Your task to perform on an android device: turn vacation reply on in the gmail app Image 0: 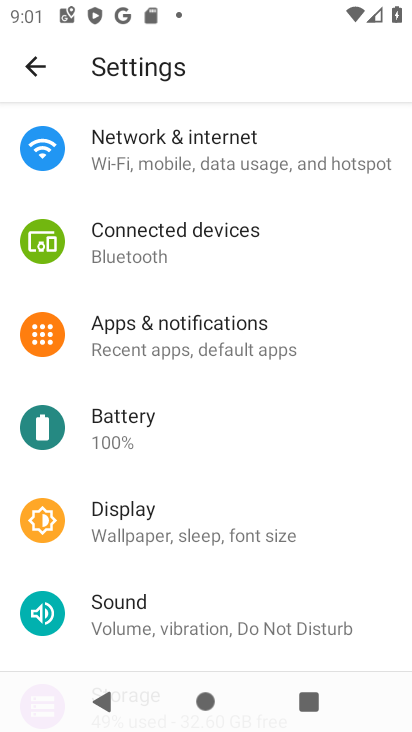
Step 0: press home button
Your task to perform on an android device: turn vacation reply on in the gmail app Image 1: 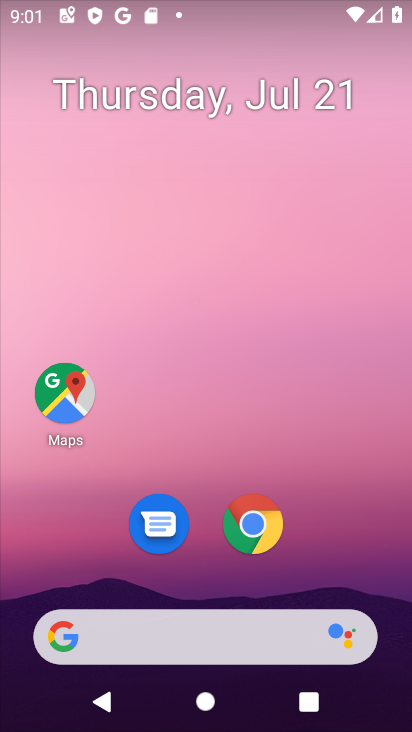
Step 1: drag from (180, 640) to (280, 191)
Your task to perform on an android device: turn vacation reply on in the gmail app Image 2: 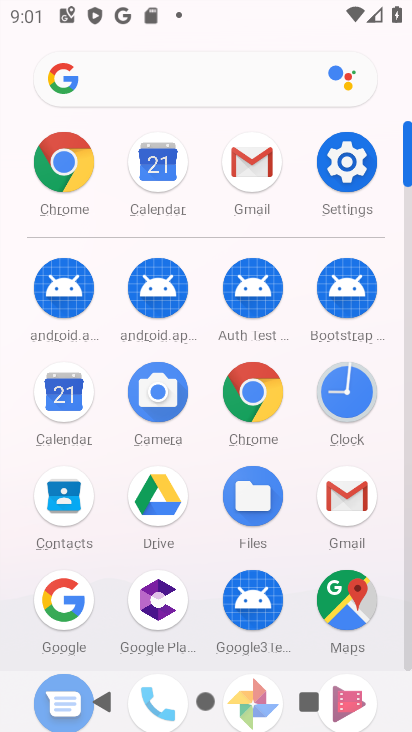
Step 2: click (256, 171)
Your task to perform on an android device: turn vacation reply on in the gmail app Image 3: 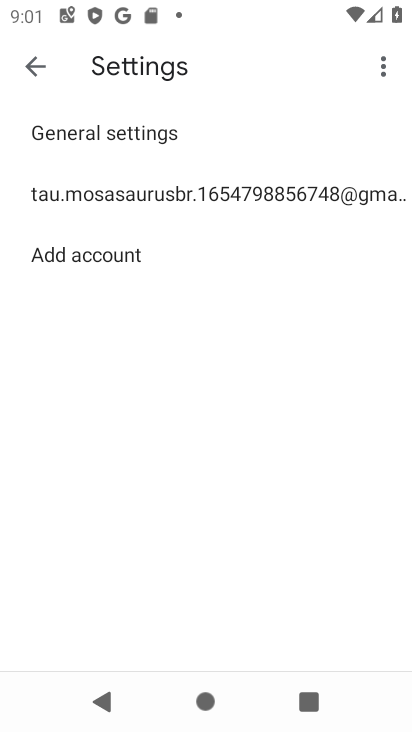
Step 3: click (216, 193)
Your task to perform on an android device: turn vacation reply on in the gmail app Image 4: 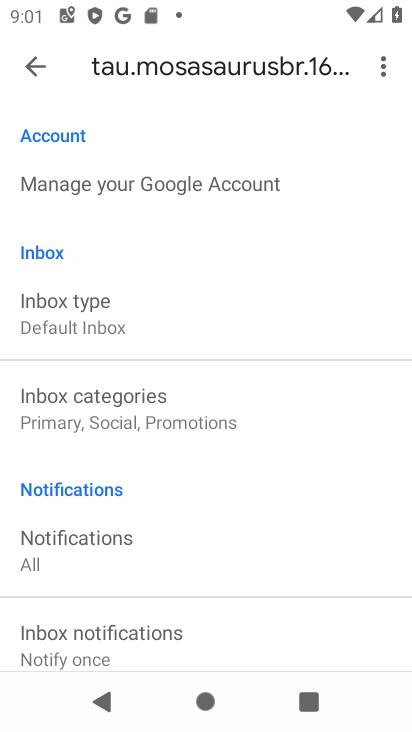
Step 4: drag from (260, 485) to (324, 26)
Your task to perform on an android device: turn vacation reply on in the gmail app Image 5: 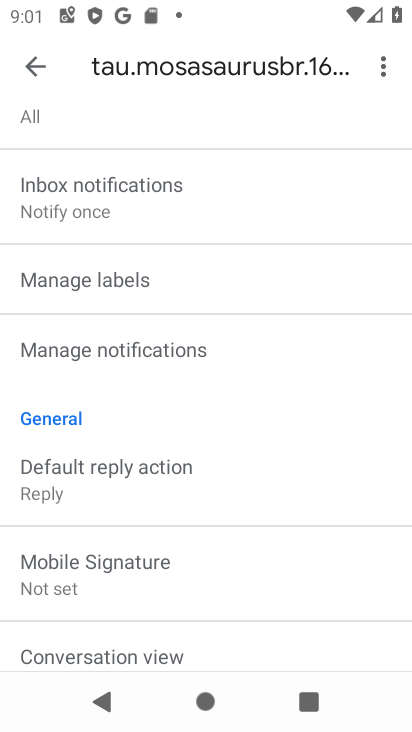
Step 5: drag from (246, 503) to (321, 2)
Your task to perform on an android device: turn vacation reply on in the gmail app Image 6: 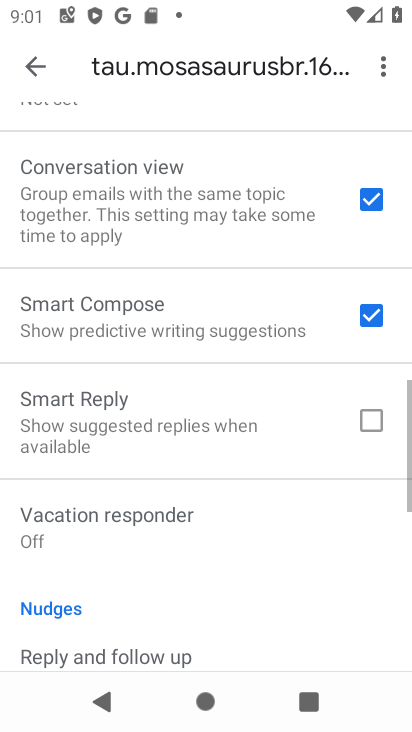
Step 6: click (123, 536)
Your task to perform on an android device: turn vacation reply on in the gmail app Image 7: 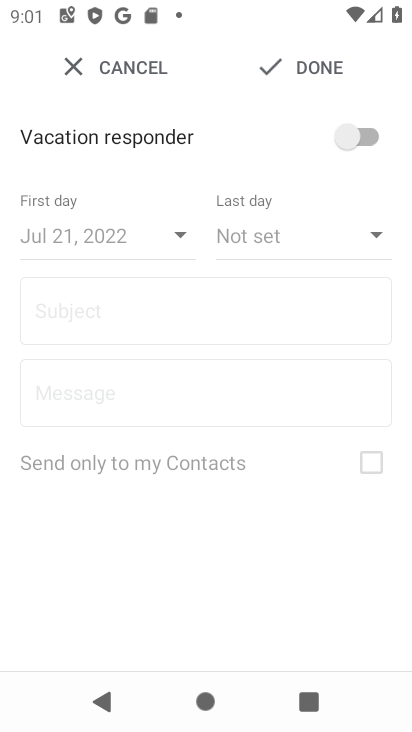
Step 7: click (367, 131)
Your task to perform on an android device: turn vacation reply on in the gmail app Image 8: 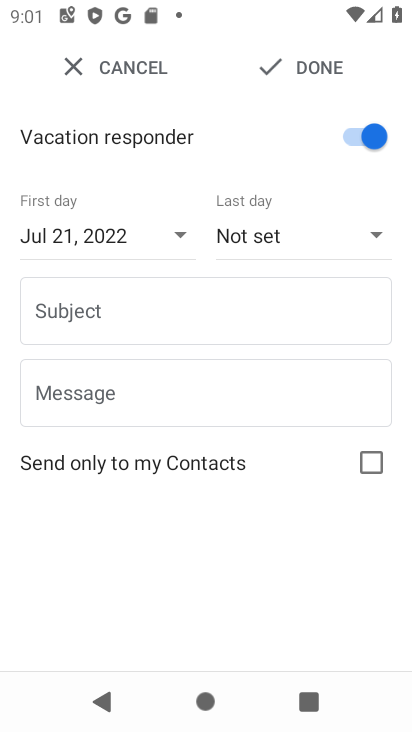
Step 8: click (160, 316)
Your task to perform on an android device: turn vacation reply on in the gmail app Image 9: 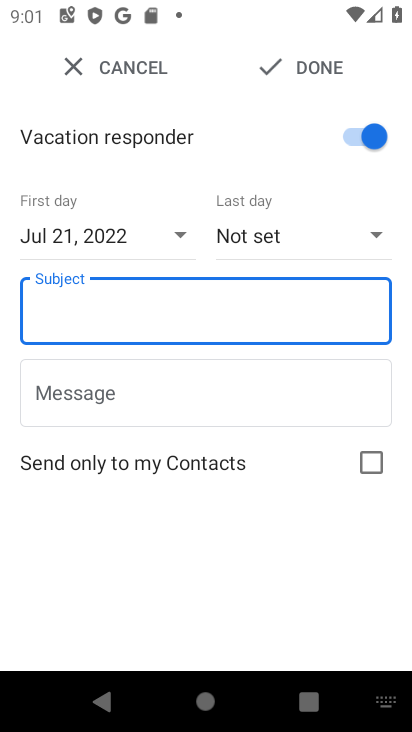
Step 9: type "tyg"
Your task to perform on an android device: turn vacation reply on in the gmail app Image 10: 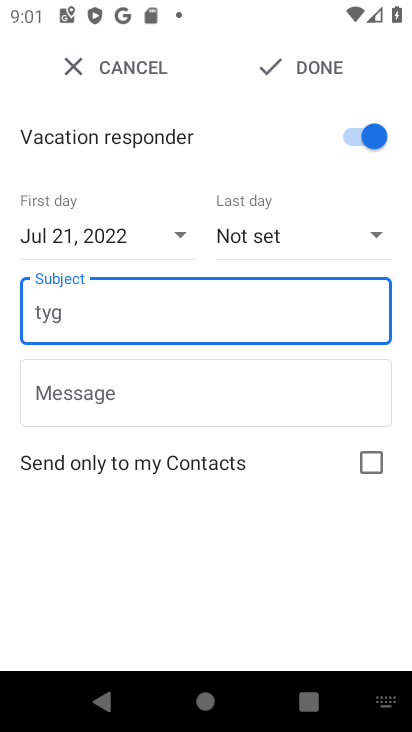
Step 10: click (118, 396)
Your task to perform on an android device: turn vacation reply on in the gmail app Image 11: 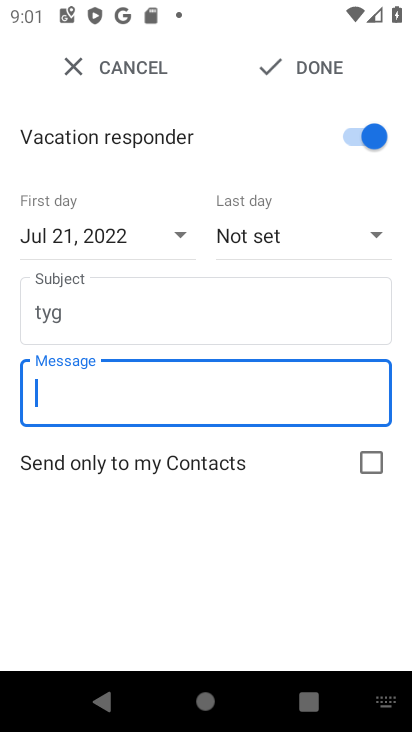
Step 11: type "ert"
Your task to perform on an android device: turn vacation reply on in the gmail app Image 12: 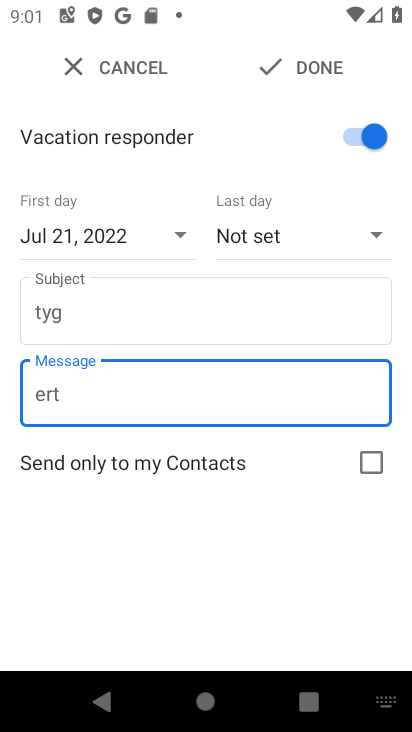
Step 12: click (306, 55)
Your task to perform on an android device: turn vacation reply on in the gmail app Image 13: 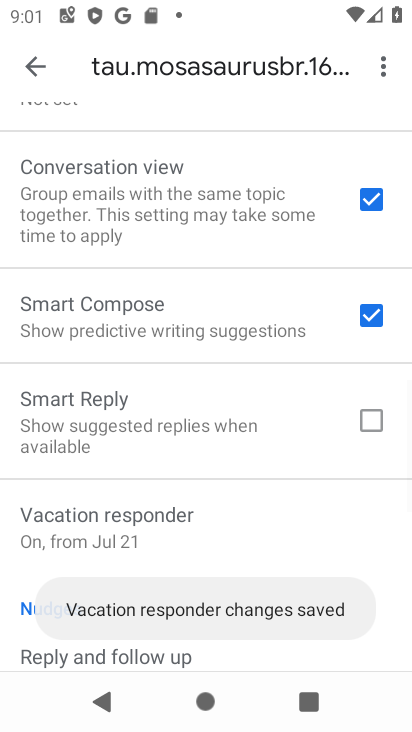
Step 13: task complete